Your task to perform on an android device: turn off notifications in google photos Image 0: 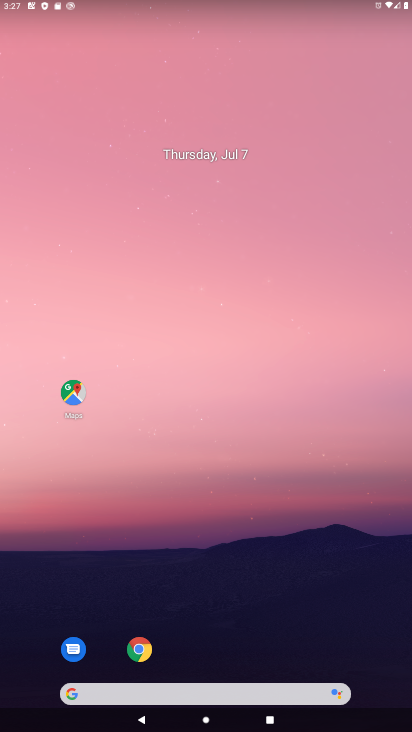
Step 0: drag from (187, 658) to (235, 44)
Your task to perform on an android device: turn off notifications in google photos Image 1: 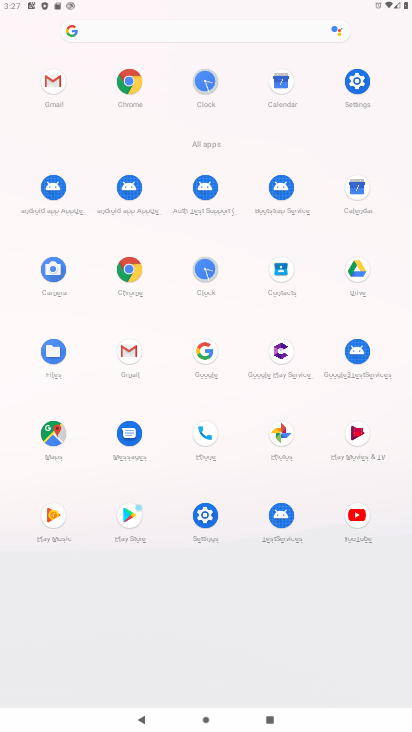
Step 1: click (280, 433)
Your task to perform on an android device: turn off notifications in google photos Image 2: 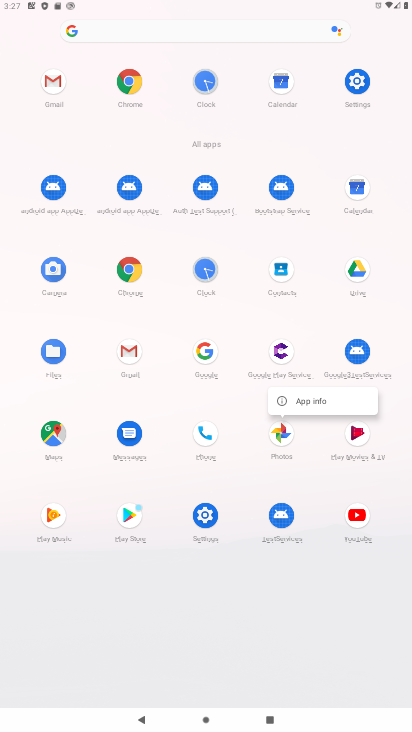
Step 2: click (306, 405)
Your task to perform on an android device: turn off notifications in google photos Image 3: 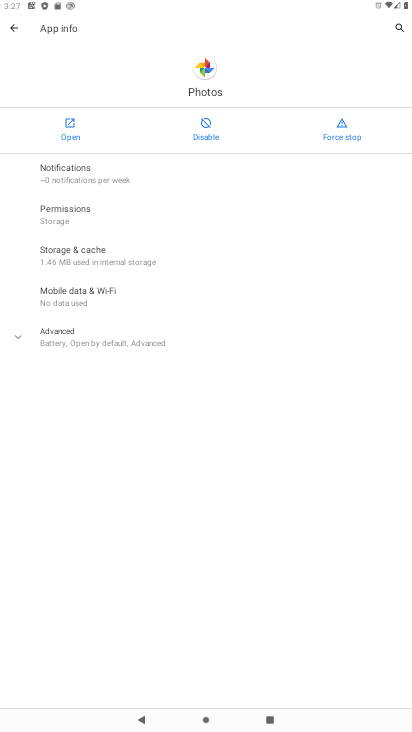
Step 3: click (71, 126)
Your task to perform on an android device: turn off notifications in google photos Image 4: 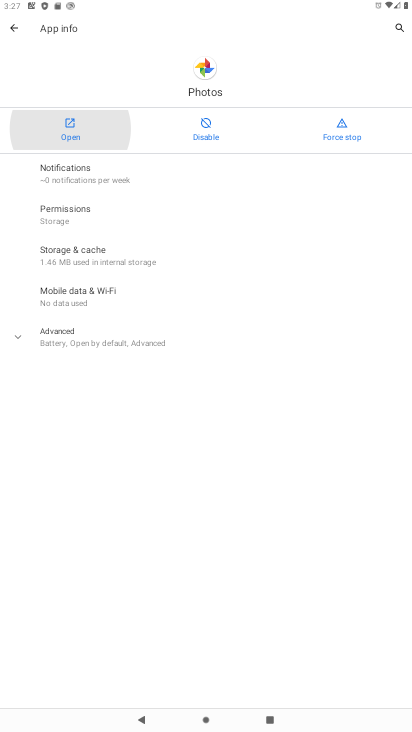
Step 4: click (71, 126)
Your task to perform on an android device: turn off notifications in google photos Image 5: 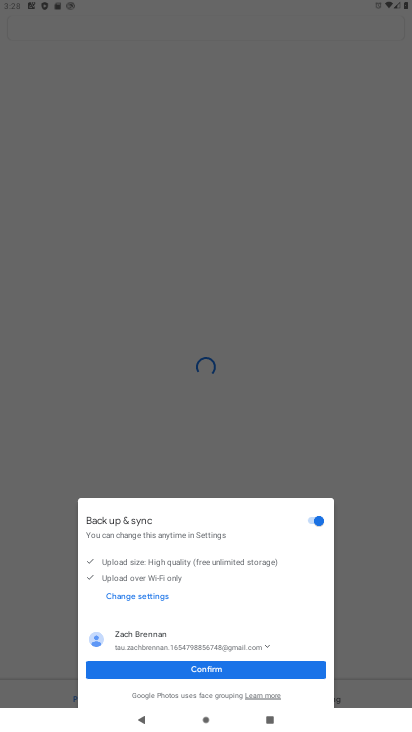
Step 5: click (189, 668)
Your task to perform on an android device: turn off notifications in google photos Image 6: 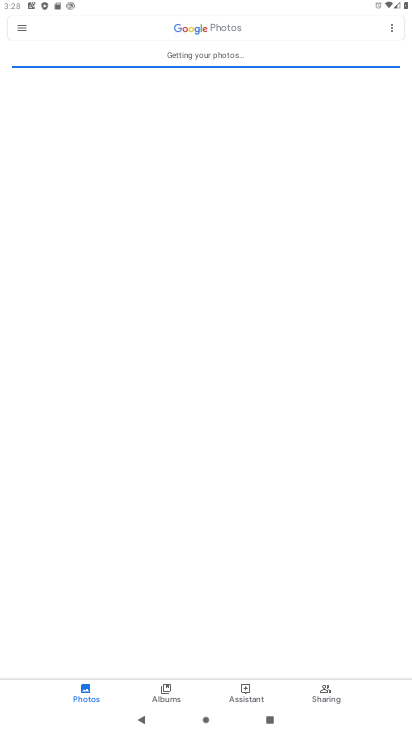
Step 6: click (29, 36)
Your task to perform on an android device: turn off notifications in google photos Image 7: 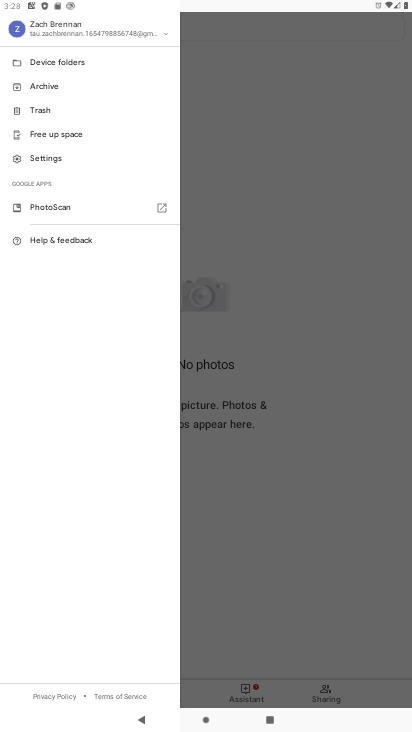
Step 7: click (40, 154)
Your task to perform on an android device: turn off notifications in google photos Image 8: 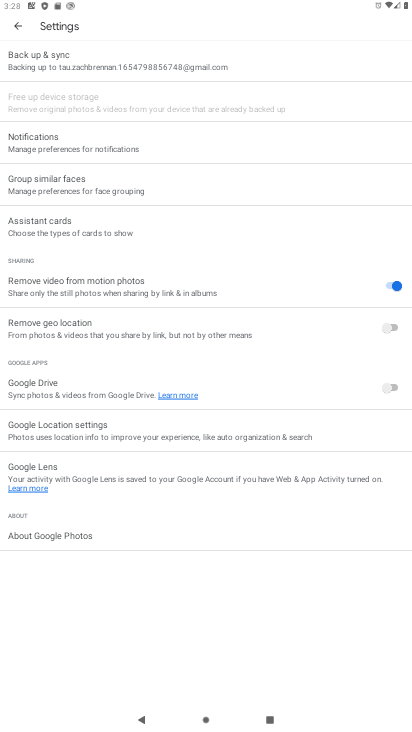
Step 8: click (87, 143)
Your task to perform on an android device: turn off notifications in google photos Image 9: 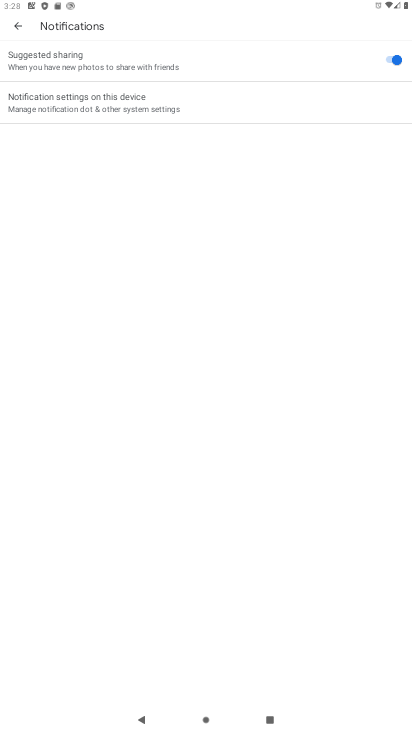
Step 9: drag from (203, 360) to (228, 104)
Your task to perform on an android device: turn off notifications in google photos Image 10: 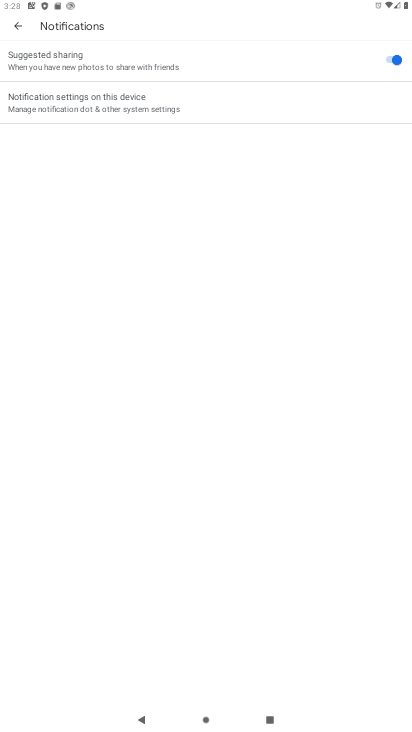
Step 10: click (159, 99)
Your task to perform on an android device: turn off notifications in google photos Image 11: 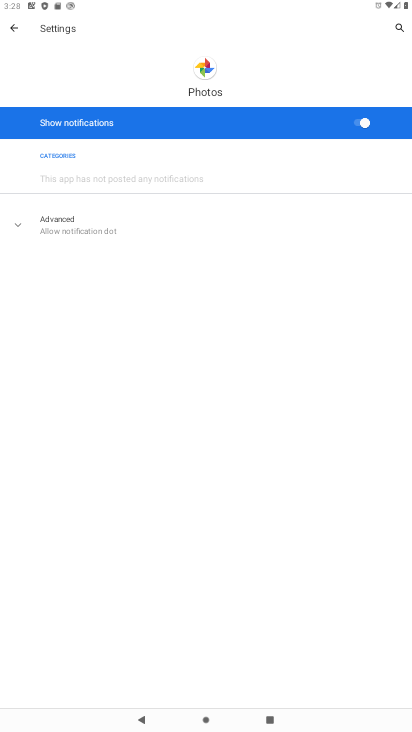
Step 11: click (369, 120)
Your task to perform on an android device: turn off notifications in google photos Image 12: 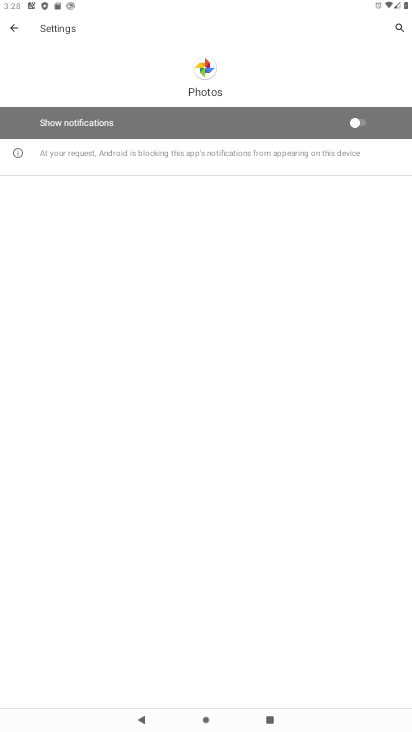
Step 12: task complete